Your task to perform on an android device: turn off picture-in-picture Image 0: 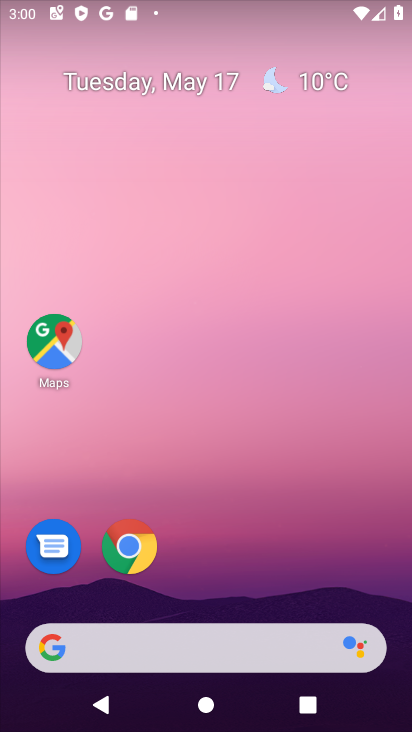
Step 0: click (131, 533)
Your task to perform on an android device: turn off picture-in-picture Image 1: 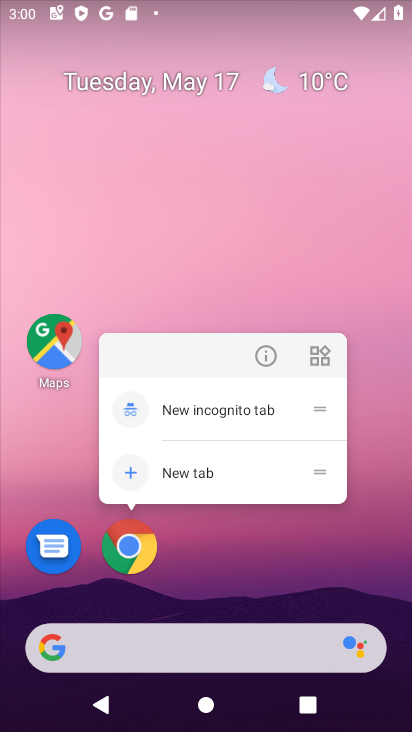
Step 1: click (263, 362)
Your task to perform on an android device: turn off picture-in-picture Image 2: 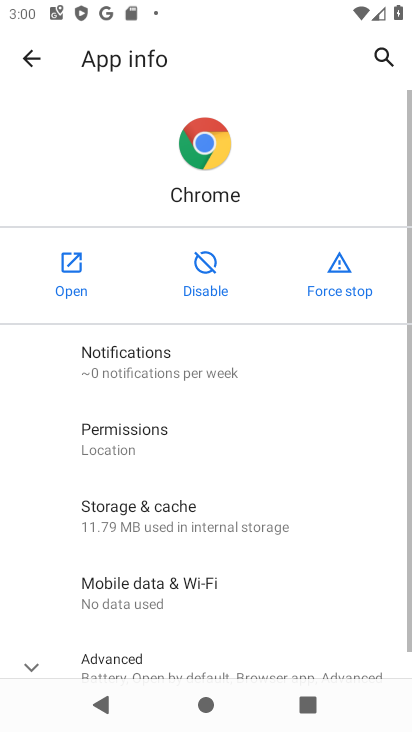
Step 2: drag from (141, 540) to (224, 238)
Your task to perform on an android device: turn off picture-in-picture Image 3: 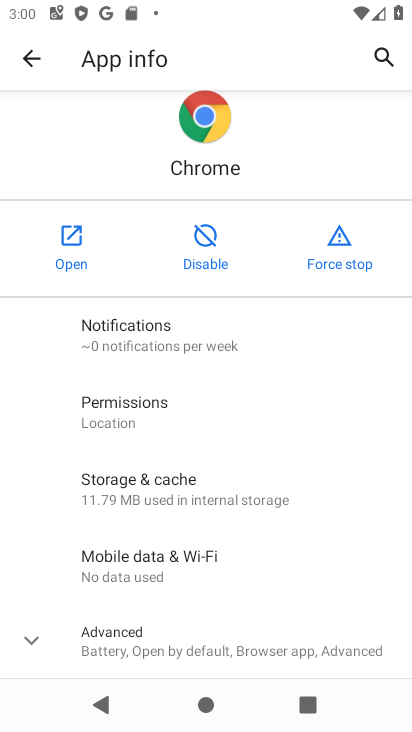
Step 3: click (148, 644)
Your task to perform on an android device: turn off picture-in-picture Image 4: 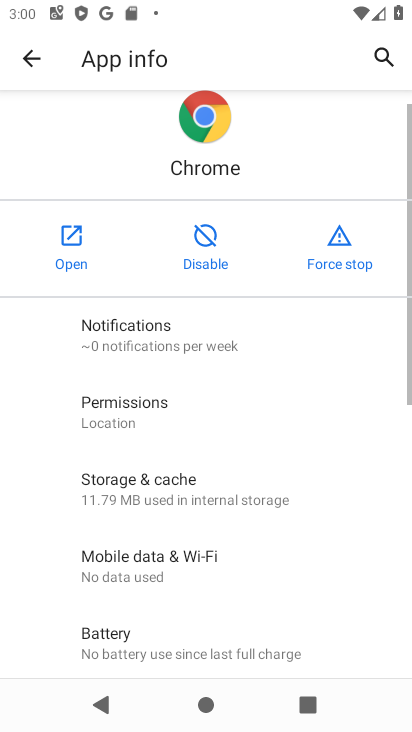
Step 4: drag from (188, 548) to (235, 262)
Your task to perform on an android device: turn off picture-in-picture Image 5: 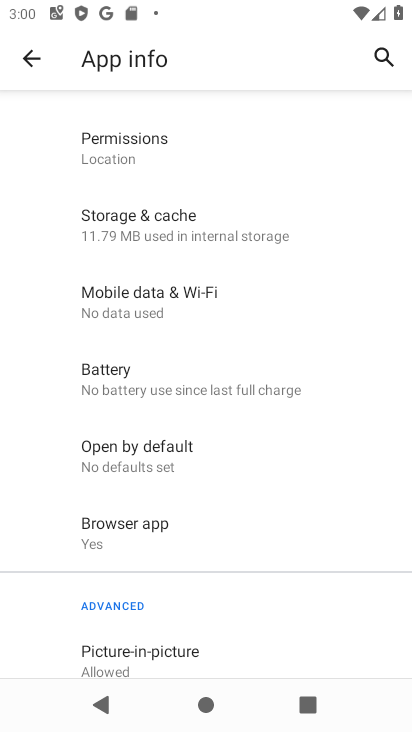
Step 5: drag from (149, 625) to (181, 447)
Your task to perform on an android device: turn off picture-in-picture Image 6: 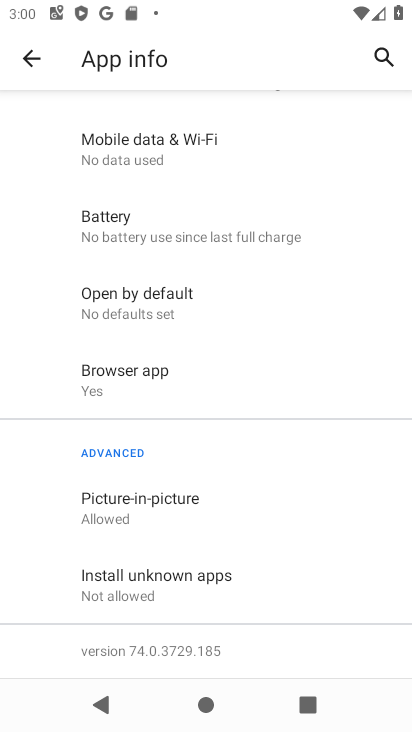
Step 6: click (160, 510)
Your task to perform on an android device: turn off picture-in-picture Image 7: 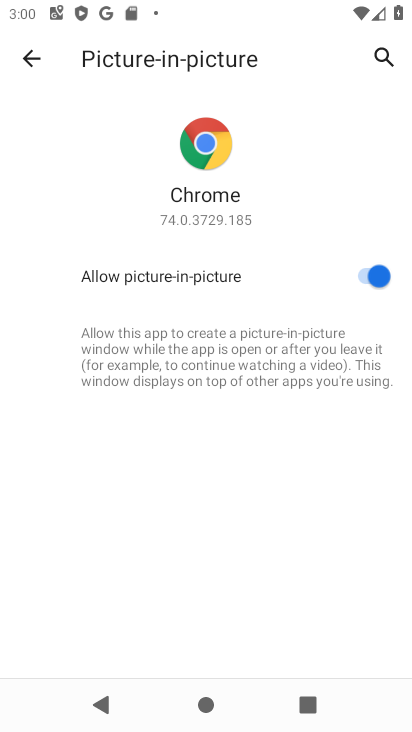
Step 7: click (347, 264)
Your task to perform on an android device: turn off picture-in-picture Image 8: 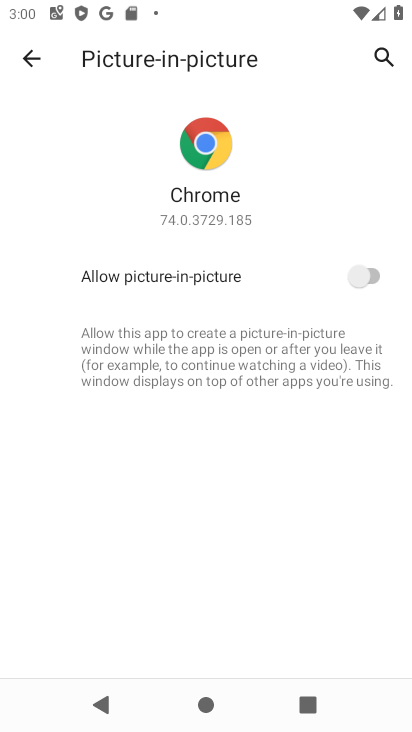
Step 8: task complete